Your task to perform on an android device: turn off javascript in the chrome app Image 0: 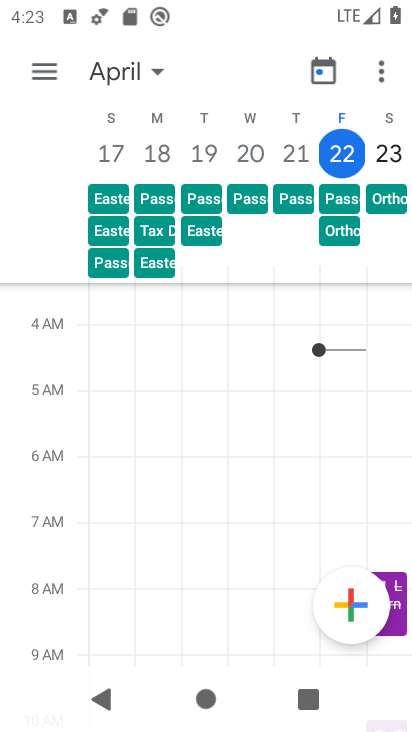
Step 0: press home button
Your task to perform on an android device: turn off javascript in the chrome app Image 1: 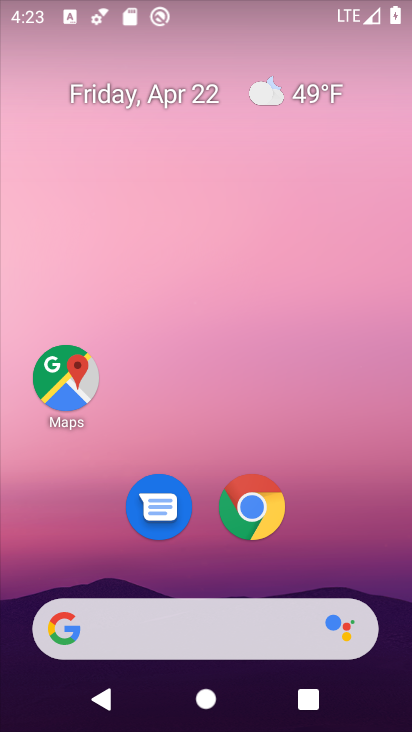
Step 1: click (251, 509)
Your task to perform on an android device: turn off javascript in the chrome app Image 2: 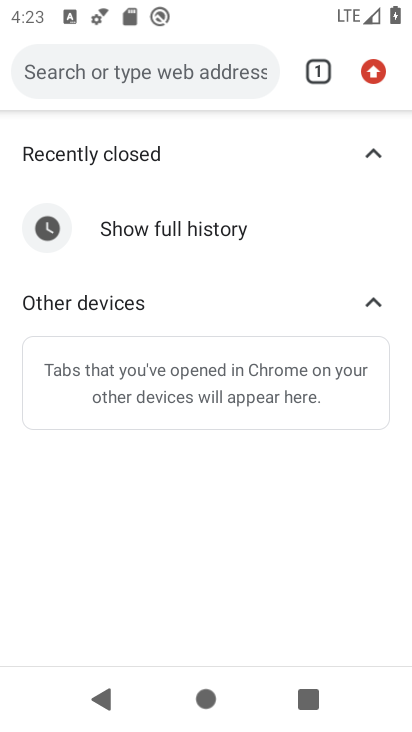
Step 2: click (372, 77)
Your task to perform on an android device: turn off javascript in the chrome app Image 3: 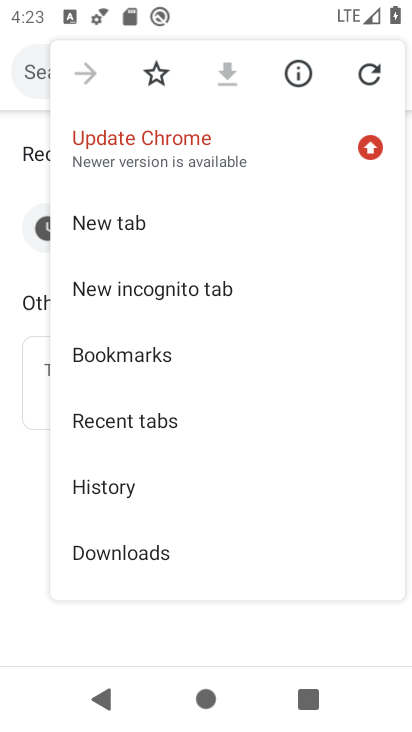
Step 3: drag from (269, 564) to (298, 139)
Your task to perform on an android device: turn off javascript in the chrome app Image 4: 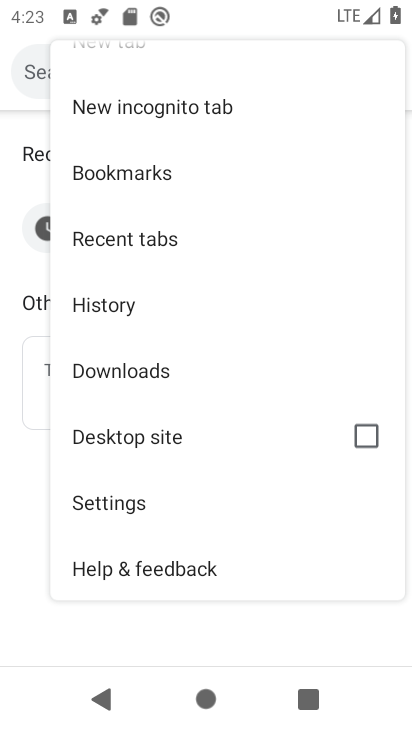
Step 4: click (133, 510)
Your task to perform on an android device: turn off javascript in the chrome app Image 5: 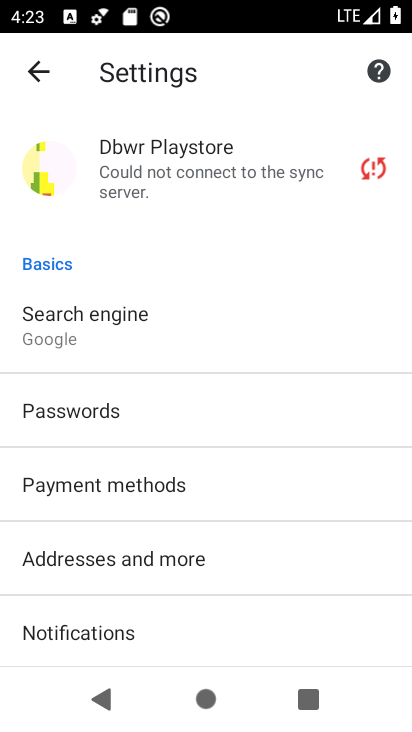
Step 5: drag from (257, 588) to (286, 190)
Your task to perform on an android device: turn off javascript in the chrome app Image 6: 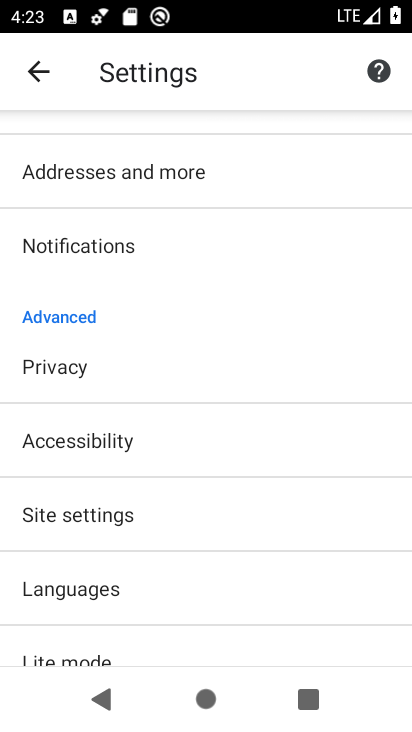
Step 6: click (76, 516)
Your task to perform on an android device: turn off javascript in the chrome app Image 7: 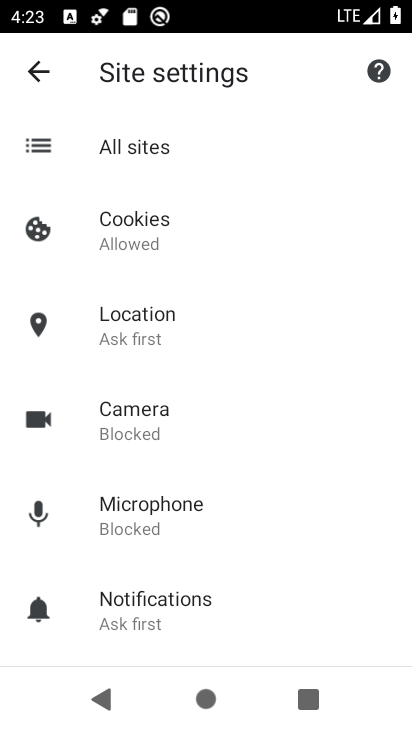
Step 7: drag from (253, 590) to (205, 235)
Your task to perform on an android device: turn off javascript in the chrome app Image 8: 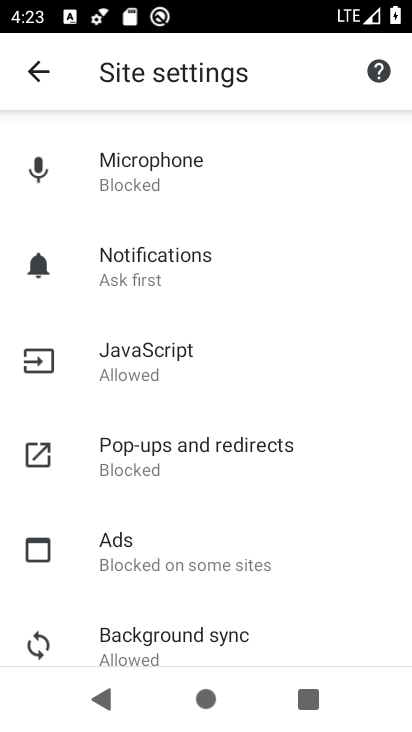
Step 8: click (126, 362)
Your task to perform on an android device: turn off javascript in the chrome app Image 9: 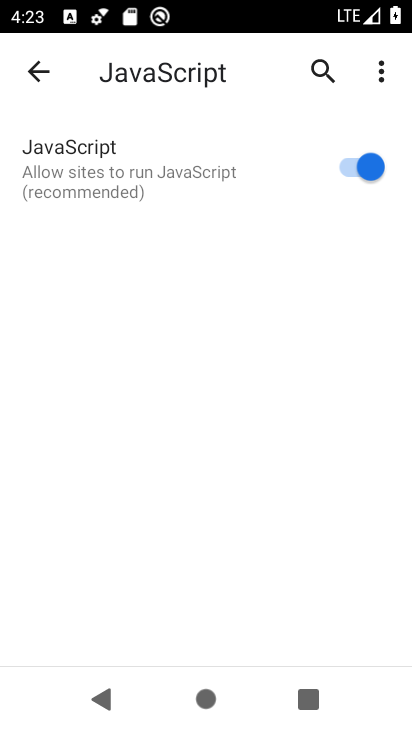
Step 9: click (343, 159)
Your task to perform on an android device: turn off javascript in the chrome app Image 10: 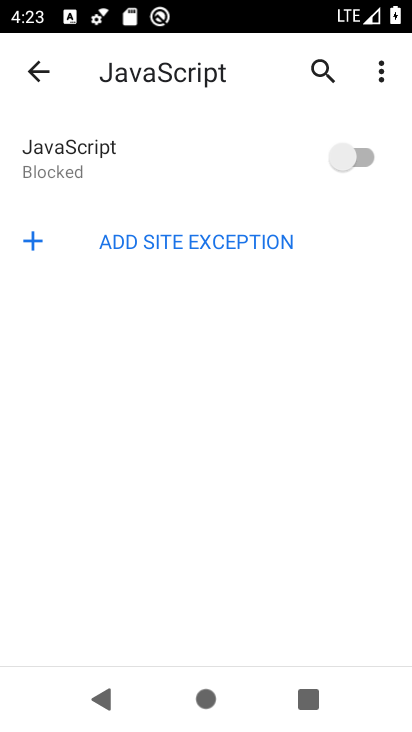
Step 10: task complete